Your task to perform on an android device: set the timer Image 0: 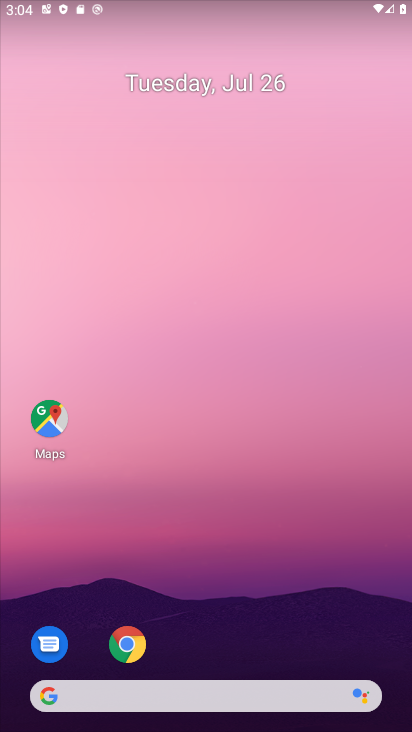
Step 0: press home button
Your task to perform on an android device: set the timer Image 1: 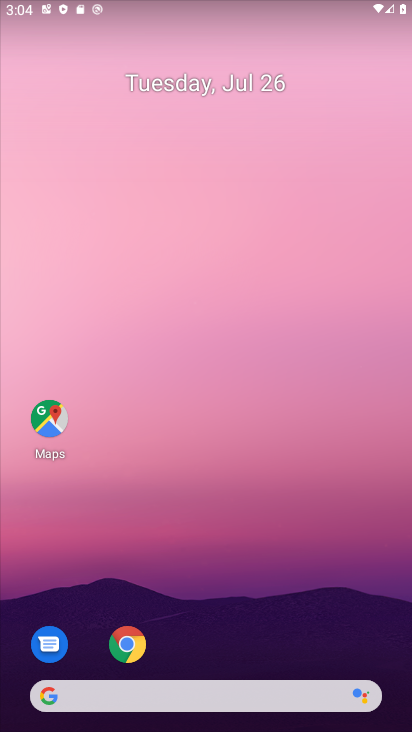
Step 1: drag from (253, 627) to (268, 144)
Your task to perform on an android device: set the timer Image 2: 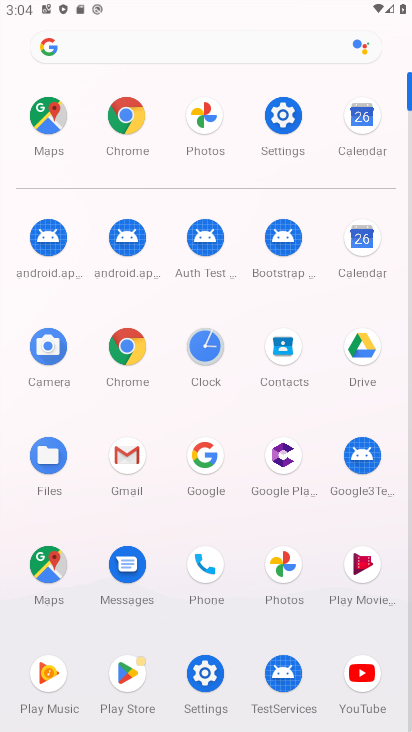
Step 2: click (204, 347)
Your task to perform on an android device: set the timer Image 3: 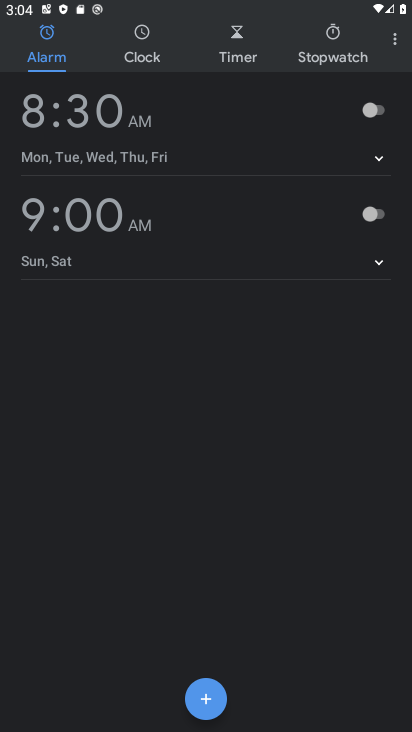
Step 3: click (226, 45)
Your task to perform on an android device: set the timer Image 4: 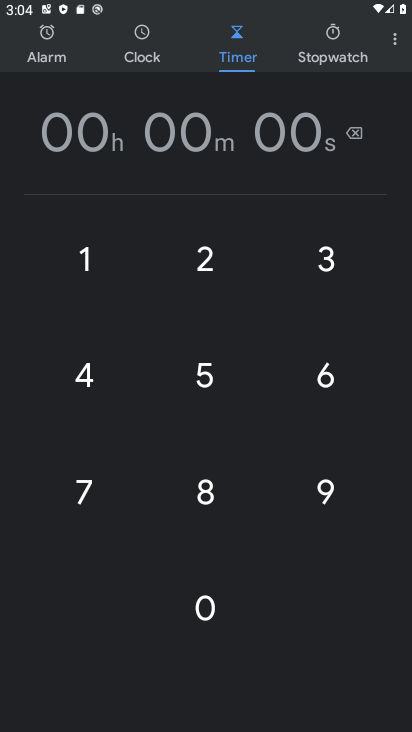
Step 4: click (185, 376)
Your task to perform on an android device: set the timer Image 5: 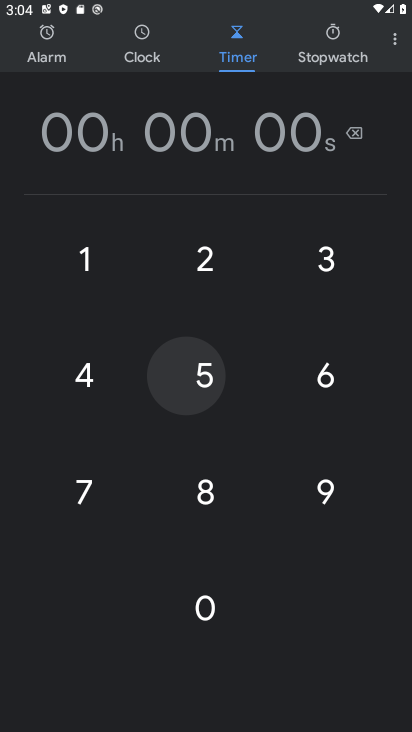
Step 5: click (199, 371)
Your task to perform on an android device: set the timer Image 6: 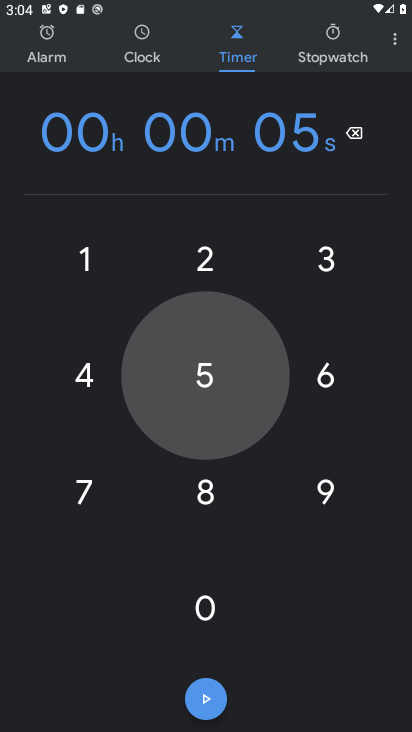
Step 6: click (211, 261)
Your task to perform on an android device: set the timer Image 7: 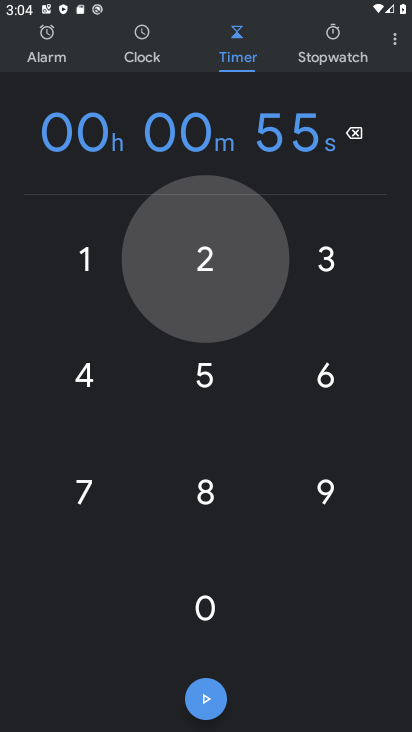
Step 7: click (210, 261)
Your task to perform on an android device: set the timer Image 8: 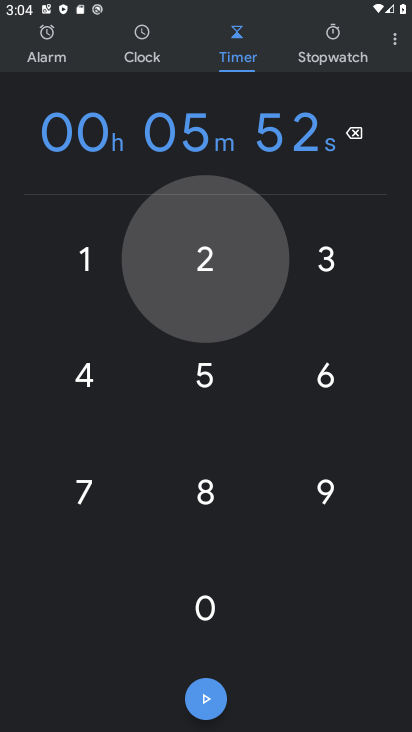
Step 8: click (210, 261)
Your task to perform on an android device: set the timer Image 9: 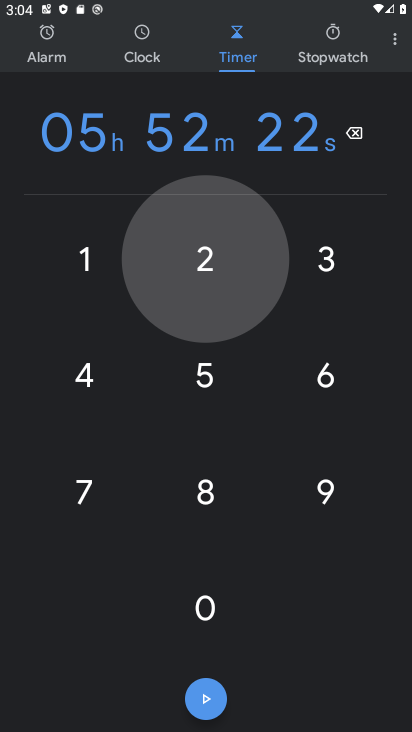
Step 9: click (216, 263)
Your task to perform on an android device: set the timer Image 10: 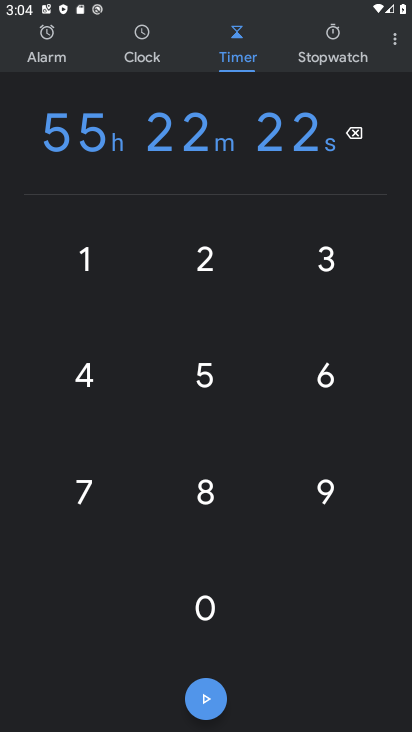
Step 10: click (213, 691)
Your task to perform on an android device: set the timer Image 11: 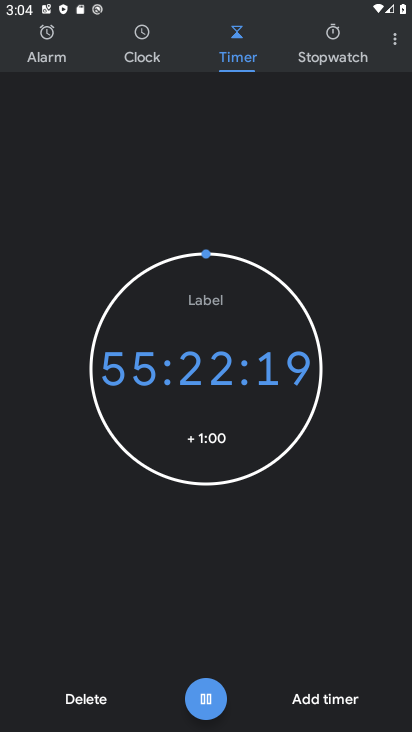
Step 11: task complete